Your task to perform on an android device: turn off translation in the chrome app Image 0: 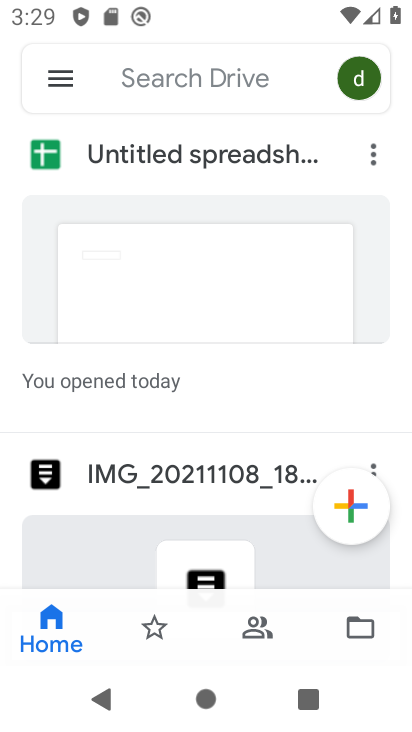
Step 0: press home button
Your task to perform on an android device: turn off translation in the chrome app Image 1: 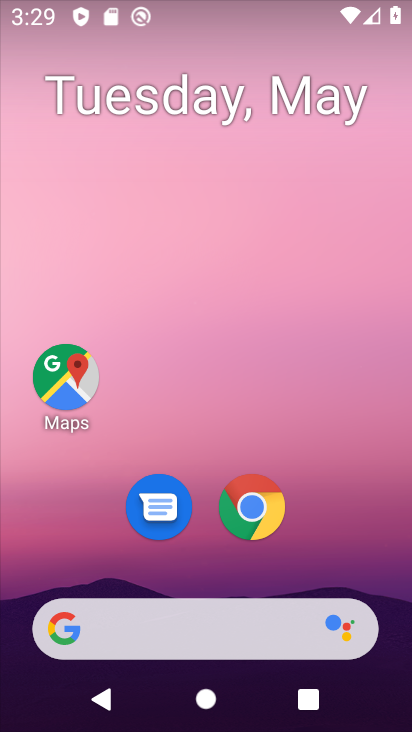
Step 1: drag from (350, 464) to (285, 98)
Your task to perform on an android device: turn off translation in the chrome app Image 2: 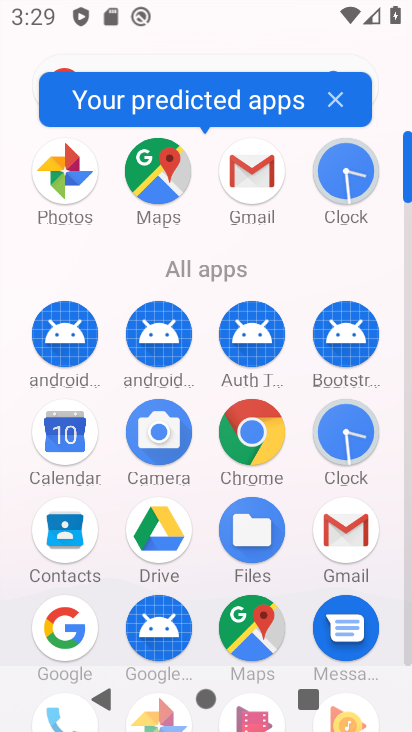
Step 2: click (265, 427)
Your task to perform on an android device: turn off translation in the chrome app Image 3: 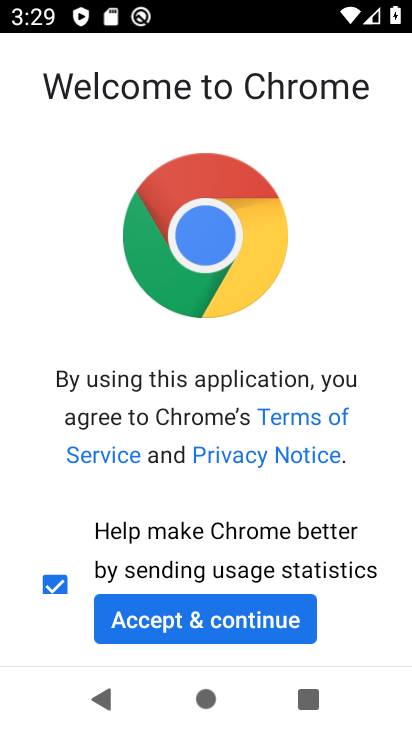
Step 3: click (264, 636)
Your task to perform on an android device: turn off translation in the chrome app Image 4: 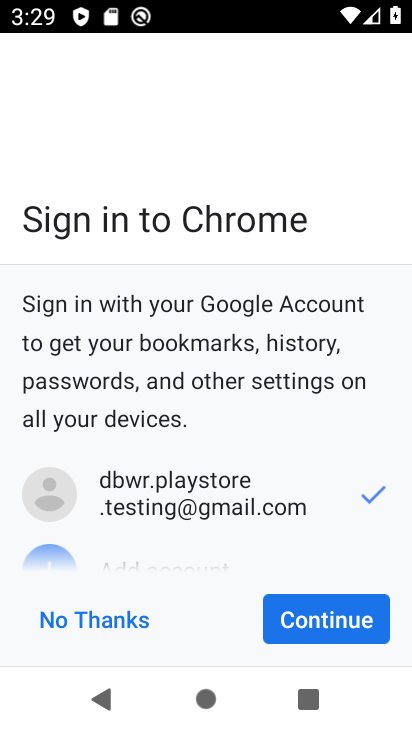
Step 4: click (138, 626)
Your task to perform on an android device: turn off translation in the chrome app Image 5: 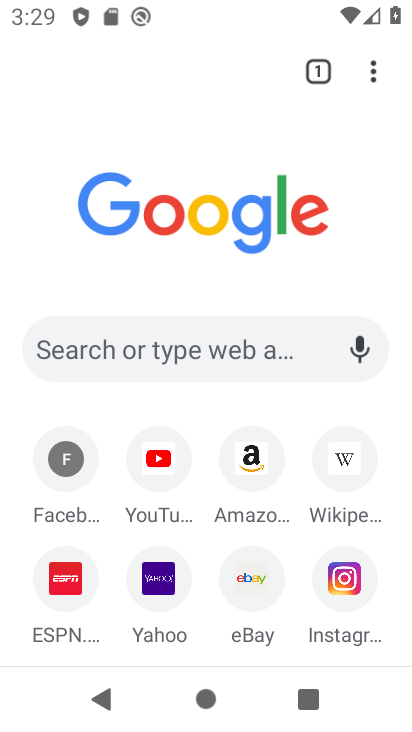
Step 5: drag from (362, 86) to (190, 506)
Your task to perform on an android device: turn off translation in the chrome app Image 6: 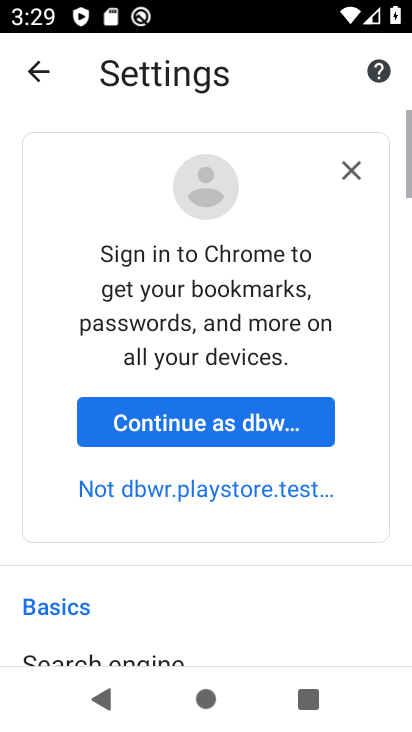
Step 6: drag from (204, 623) to (210, 292)
Your task to perform on an android device: turn off translation in the chrome app Image 7: 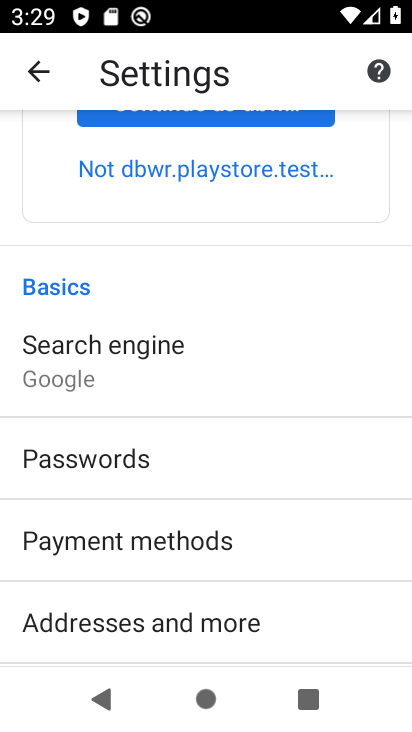
Step 7: drag from (229, 627) to (178, 197)
Your task to perform on an android device: turn off translation in the chrome app Image 8: 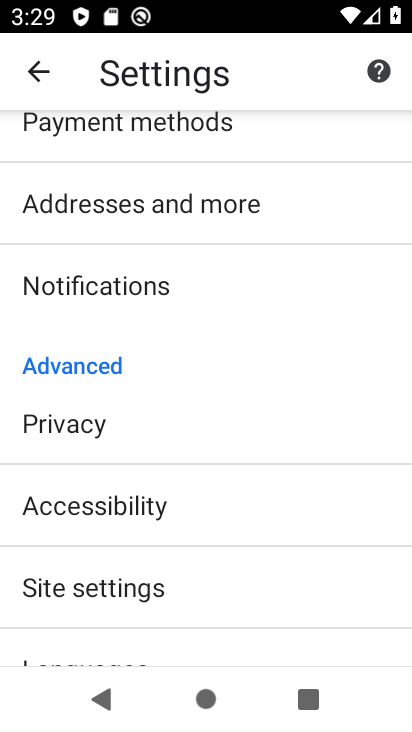
Step 8: drag from (221, 559) to (237, 272)
Your task to perform on an android device: turn off translation in the chrome app Image 9: 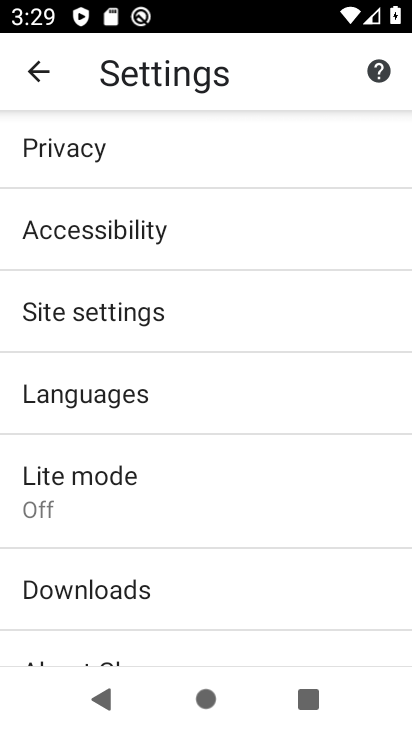
Step 9: click (252, 390)
Your task to perform on an android device: turn off translation in the chrome app Image 10: 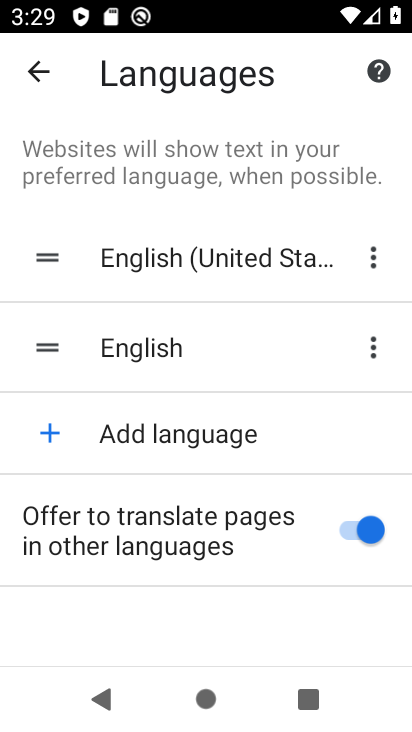
Step 10: click (354, 534)
Your task to perform on an android device: turn off translation in the chrome app Image 11: 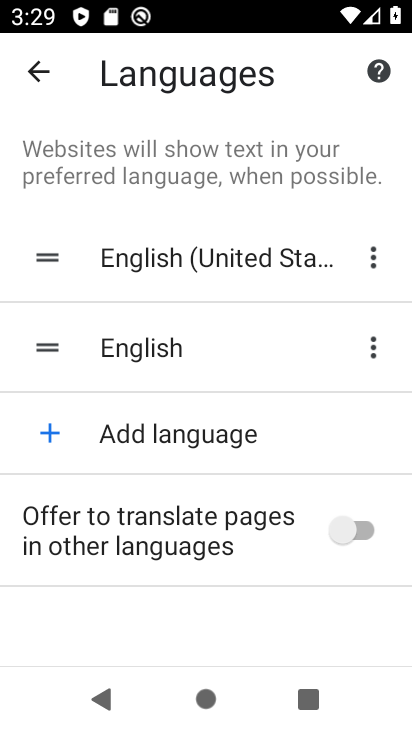
Step 11: task complete